Your task to perform on an android device: turn on sleep mode Image 0: 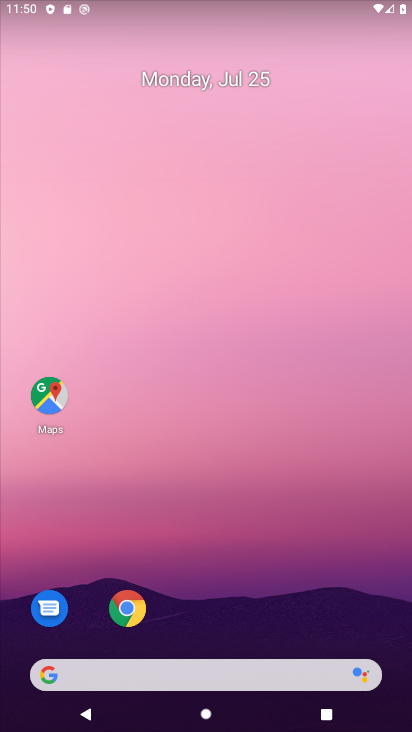
Step 0: drag from (277, 629) to (242, 186)
Your task to perform on an android device: turn on sleep mode Image 1: 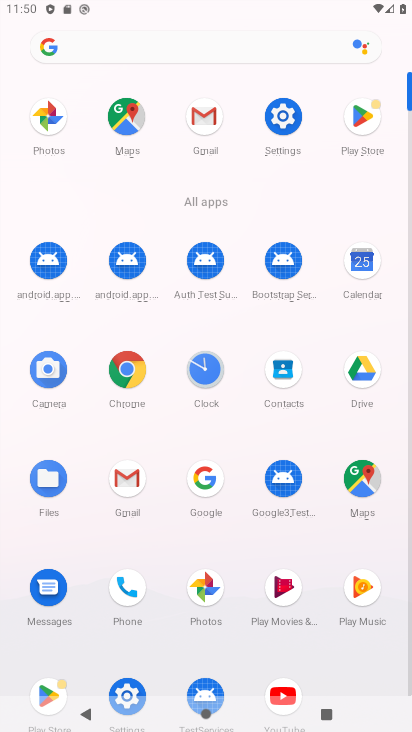
Step 1: click (282, 140)
Your task to perform on an android device: turn on sleep mode Image 2: 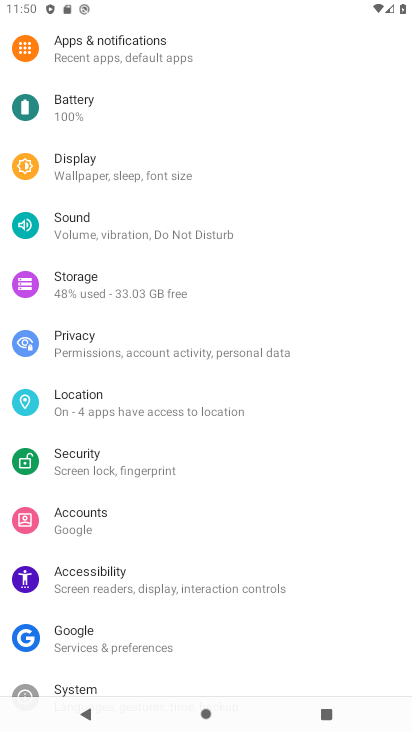
Step 2: click (172, 180)
Your task to perform on an android device: turn on sleep mode Image 3: 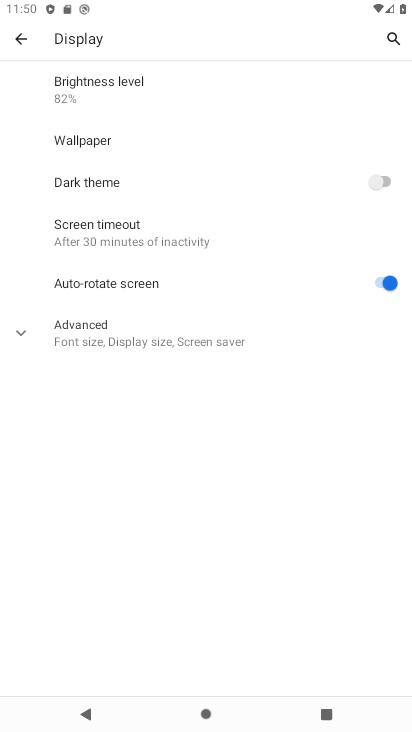
Step 3: click (225, 240)
Your task to perform on an android device: turn on sleep mode Image 4: 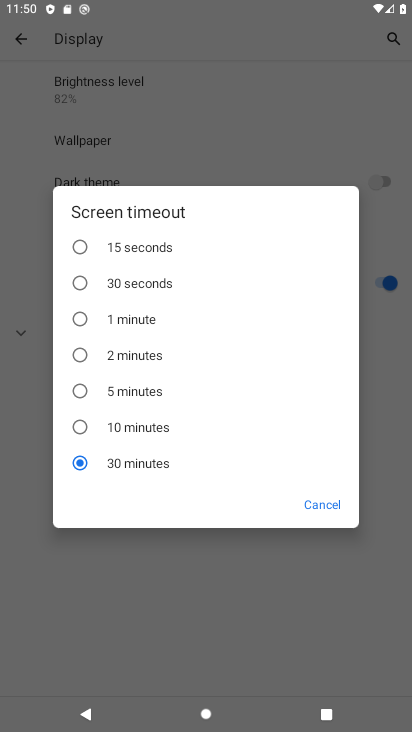
Step 4: click (158, 248)
Your task to perform on an android device: turn on sleep mode Image 5: 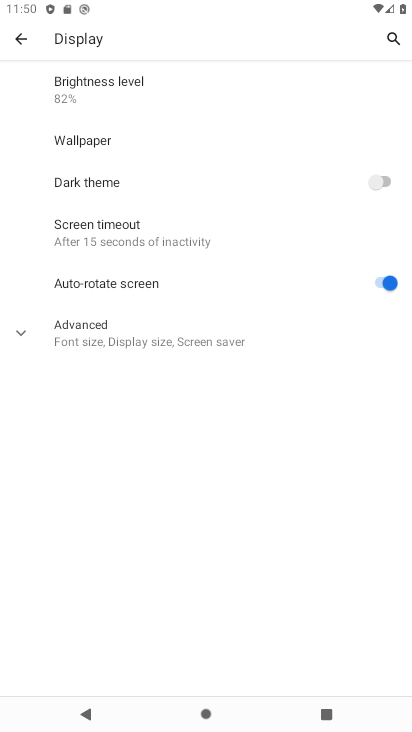
Step 5: task complete